Your task to perform on an android device: toggle pop-ups in chrome Image 0: 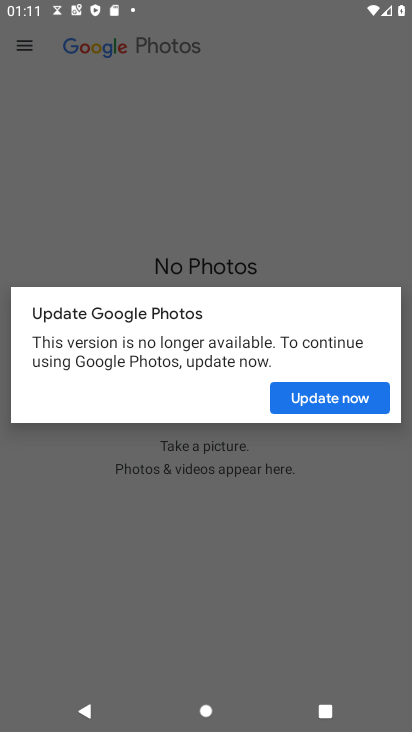
Step 0: press back button
Your task to perform on an android device: toggle pop-ups in chrome Image 1: 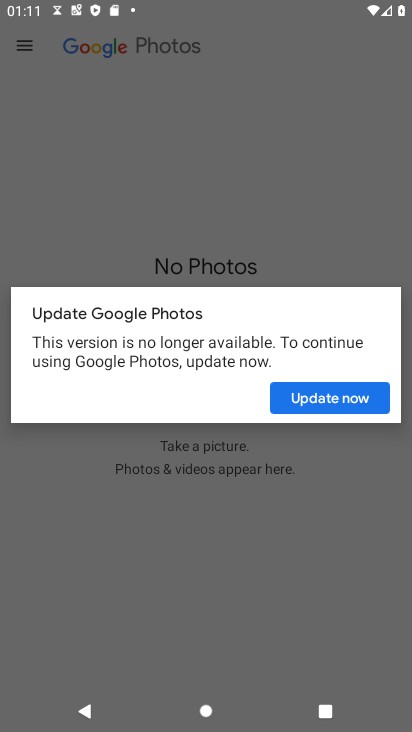
Step 1: press home button
Your task to perform on an android device: toggle pop-ups in chrome Image 2: 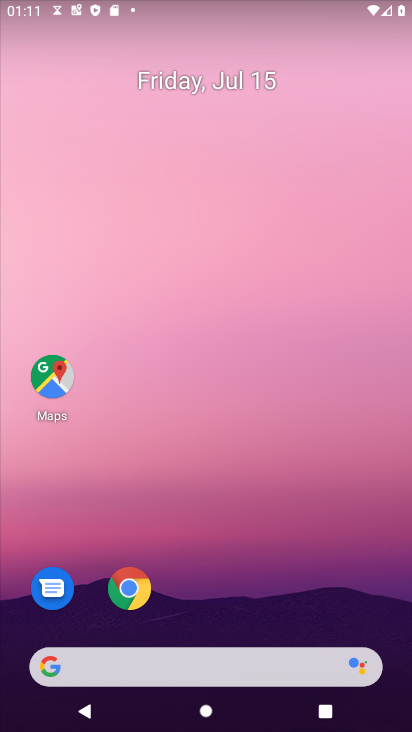
Step 2: click (127, 593)
Your task to perform on an android device: toggle pop-ups in chrome Image 3: 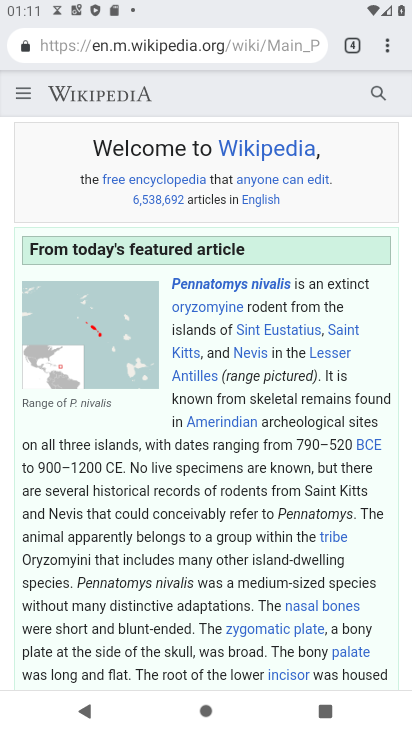
Step 3: drag from (389, 32) to (228, 551)
Your task to perform on an android device: toggle pop-ups in chrome Image 4: 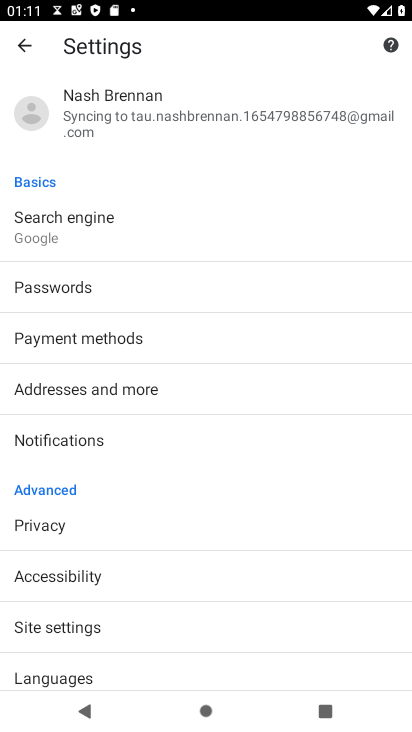
Step 4: click (75, 625)
Your task to perform on an android device: toggle pop-ups in chrome Image 5: 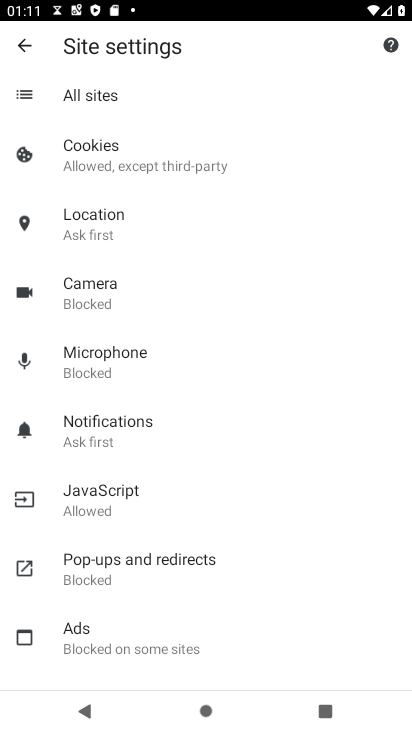
Step 5: click (123, 570)
Your task to perform on an android device: toggle pop-ups in chrome Image 6: 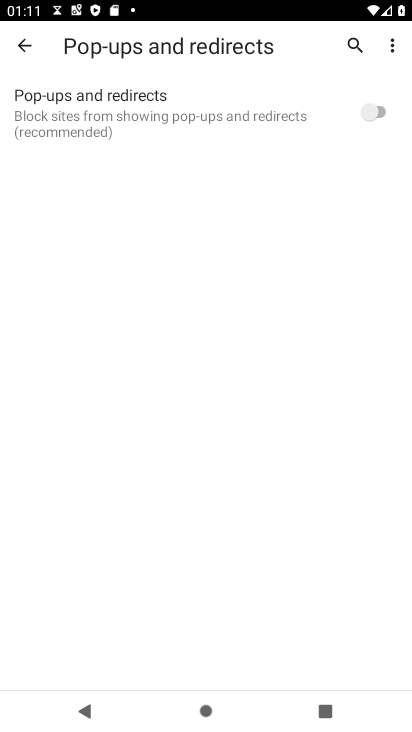
Step 6: click (374, 106)
Your task to perform on an android device: toggle pop-ups in chrome Image 7: 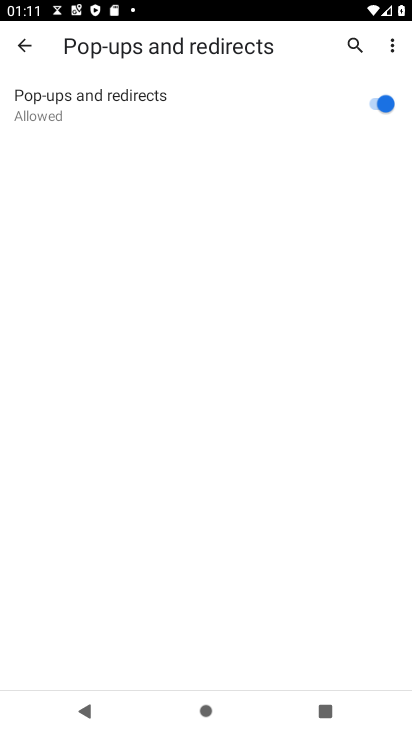
Step 7: task complete